Your task to perform on an android device: open the mobile data screen to see how much data has been used Image 0: 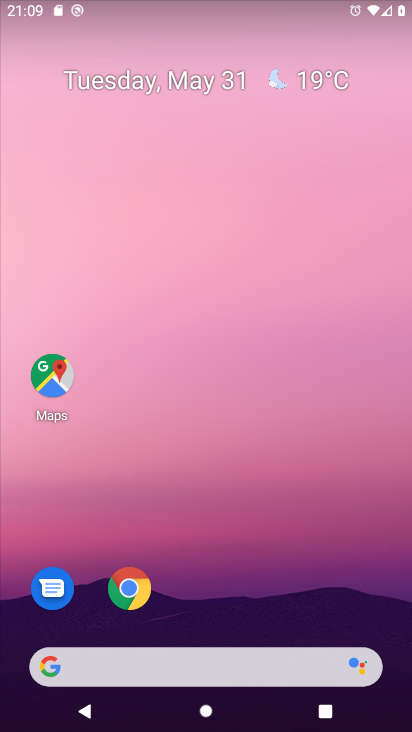
Step 0: press home button
Your task to perform on an android device: open the mobile data screen to see how much data has been used Image 1: 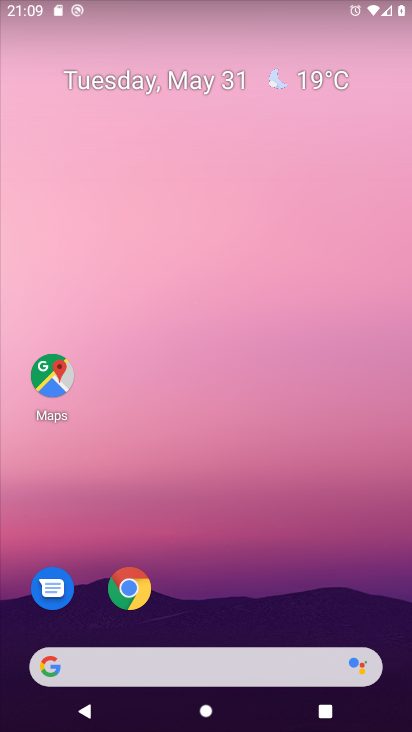
Step 1: drag from (126, 650) to (259, 181)
Your task to perform on an android device: open the mobile data screen to see how much data has been used Image 2: 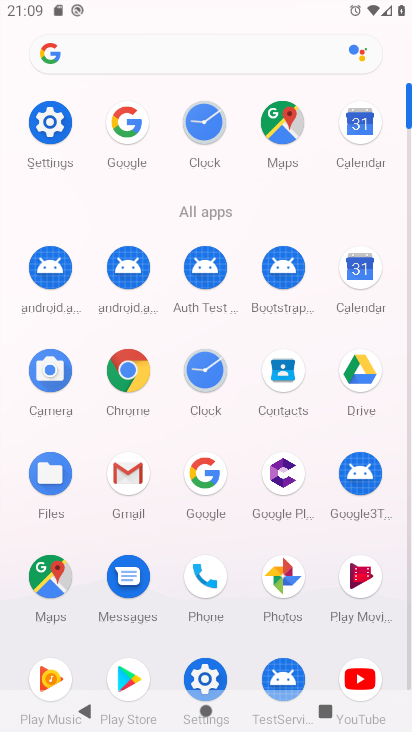
Step 2: click (43, 125)
Your task to perform on an android device: open the mobile data screen to see how much data has been used Image 3: 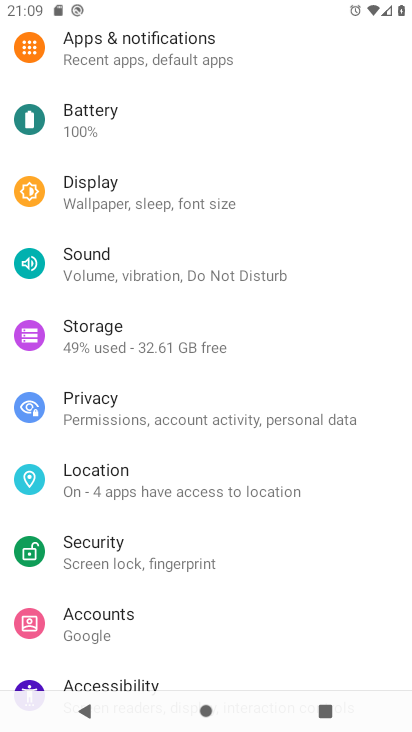
Step 3: drag from (239, 89) to (236, 593)
Your task to perform on an android device: open the mobile data screen to see how much data has been used Image 4: 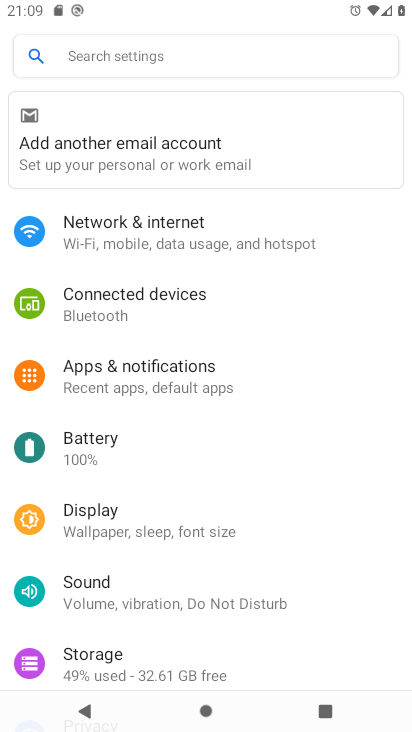
Step 4: click (161, 230)
Your task to perform on an android device: open the mobile data screen to see how much data has been used Image 5: 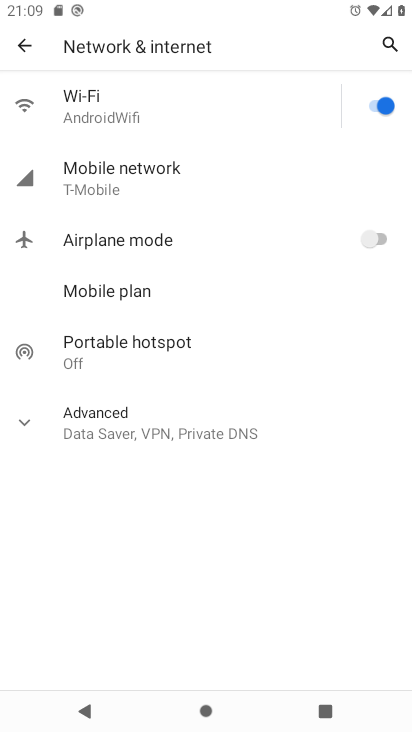
Step 5: click (128, 172)
Your task to perform on an android device: open the mobile data screen to see how much data has been used Image 6: 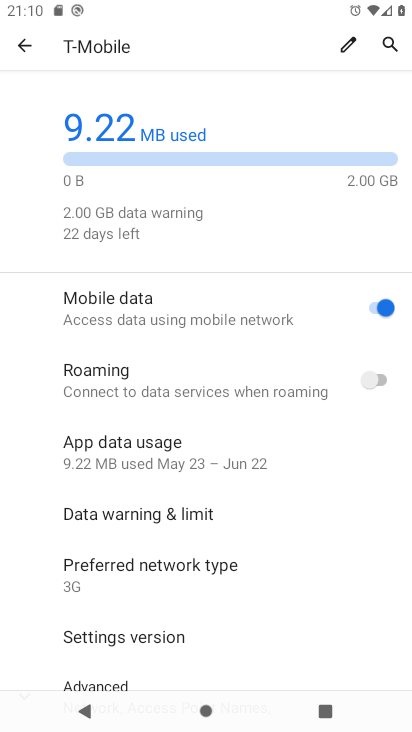
Step 6: task complete